Your task to perform on an android device: open chrome and create a bookmark for the current page Image 0: 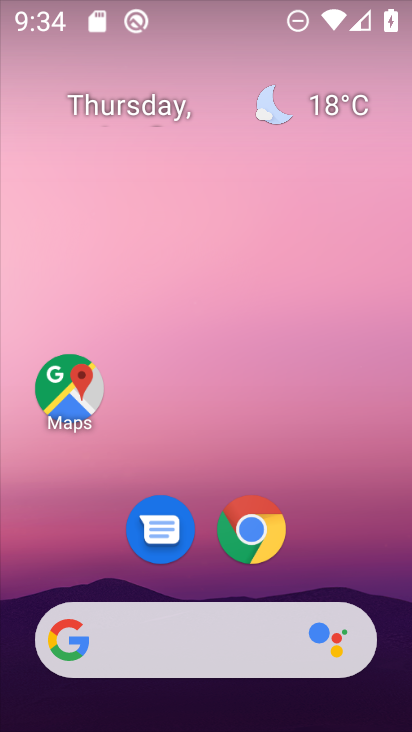
Step 0: click (245, 518)
Your task to perform on an android device: open chrome and create a bookmark for the current page Image 1: 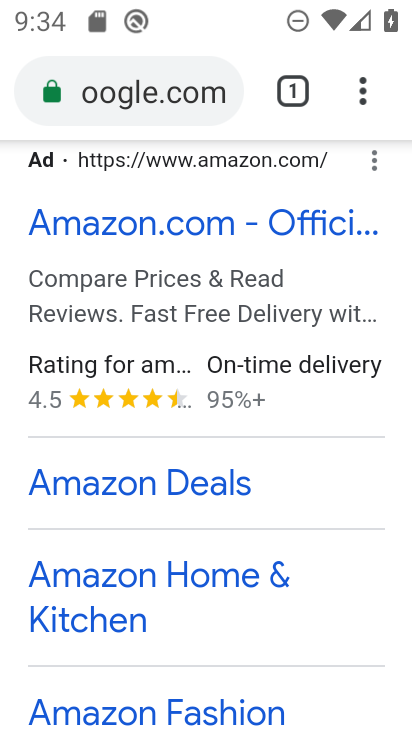
Step 1: click (364, 94)
Your task to perform on an android device: open chrome and create a bookmark for the current page Image 2: 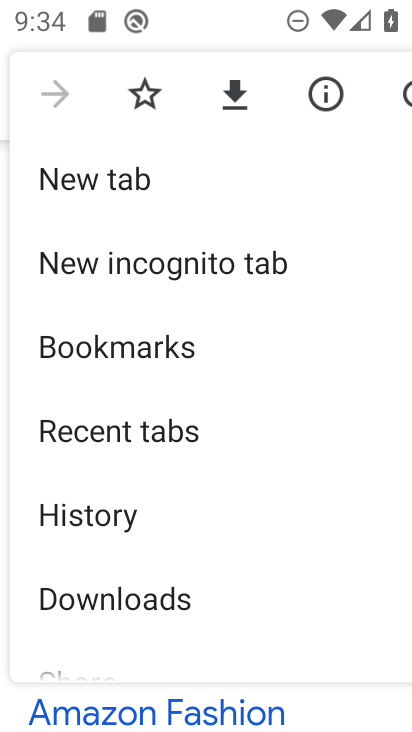
Step 2: click (141, 92)
Your task to perform on an android device: open chrome and create a bookmark for the current page Image 3: 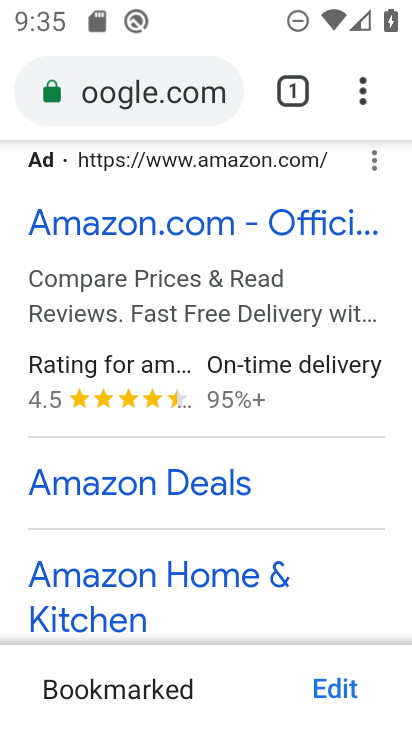
Step 3: task complete